Your task to perform on an android device: check out phone information Image 0: 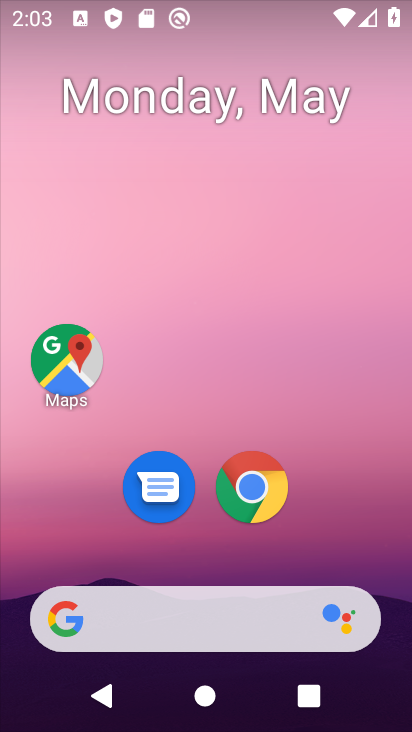
Step 0: drag from (254, 376) to (231, 1)
Your task to perform on an android device: check out phone information Image 1: 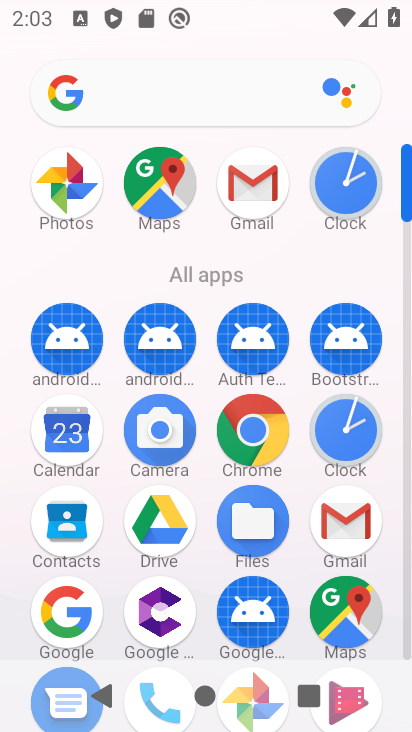
Step 1: drag from (199, 468) to (251, 147)
Your task to perform on an android device: check out phone information Image 2: 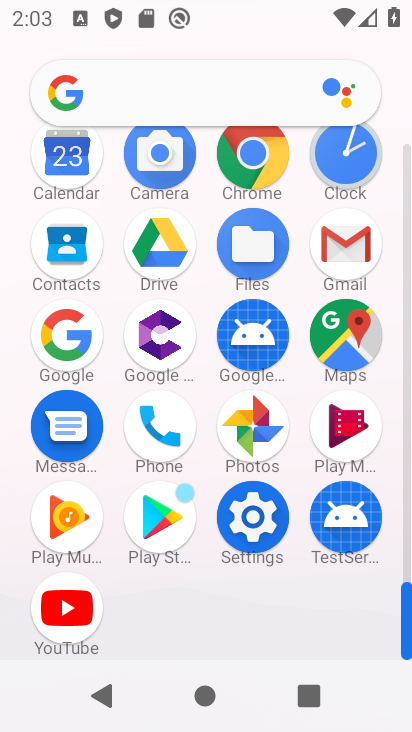
Step 2: click (165, 420)
Your task to perform on an android device: check out phone information Image 3: 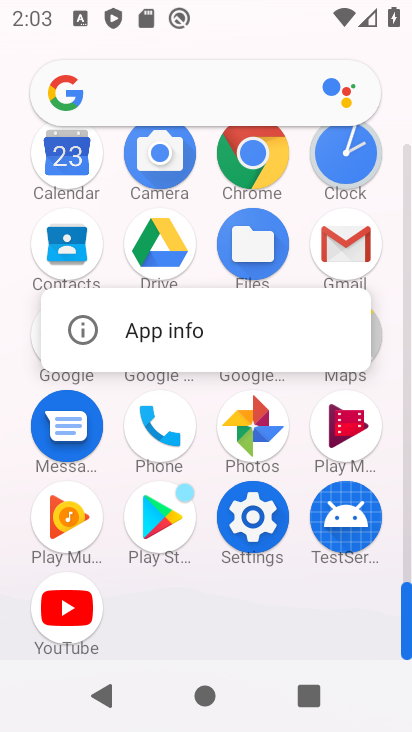
Step 3: click (165, 419)
Your task to perform on an android device: check out phone information Image 4: 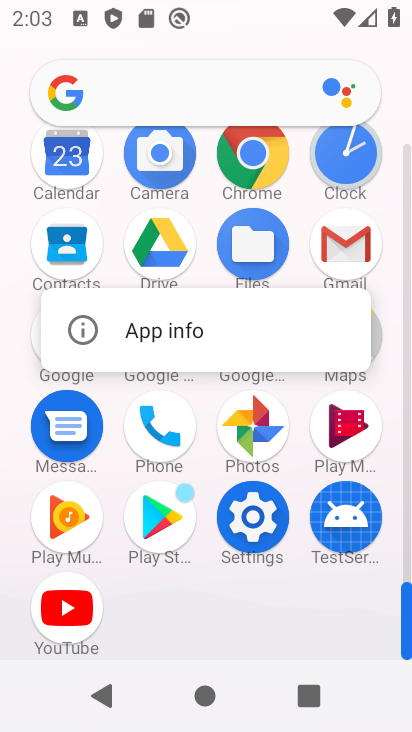
Step 4: click (159, 425)
Your task to perform on an android device: check out phone information Image 5: 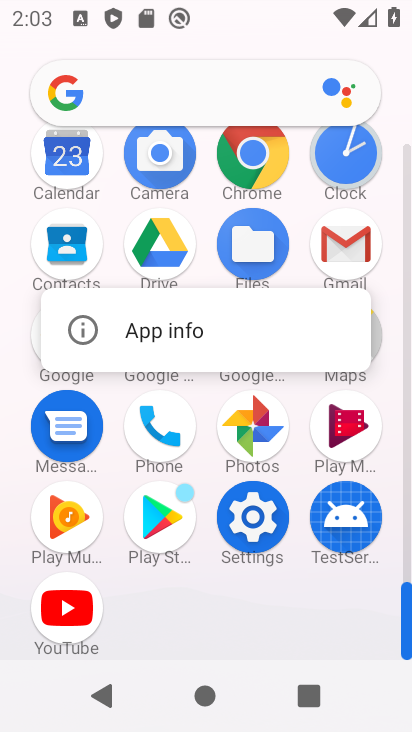
Step 5: click (159, 422)
Your task to perform on an android device: check out phone information Image 6: 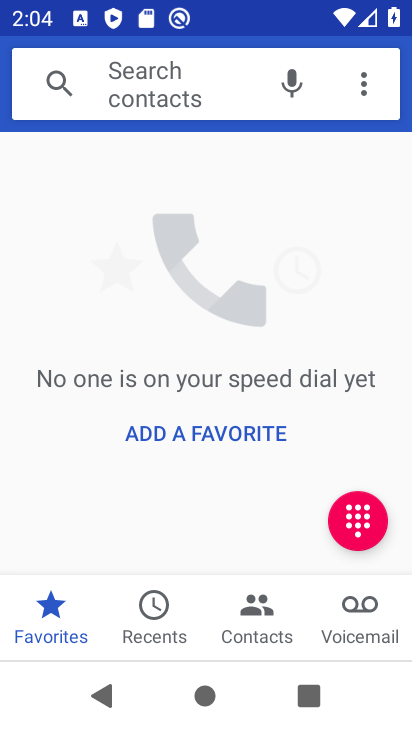
Step 6: click (361, 76)
Your task to perform on an android device: check out phone information Image 7: 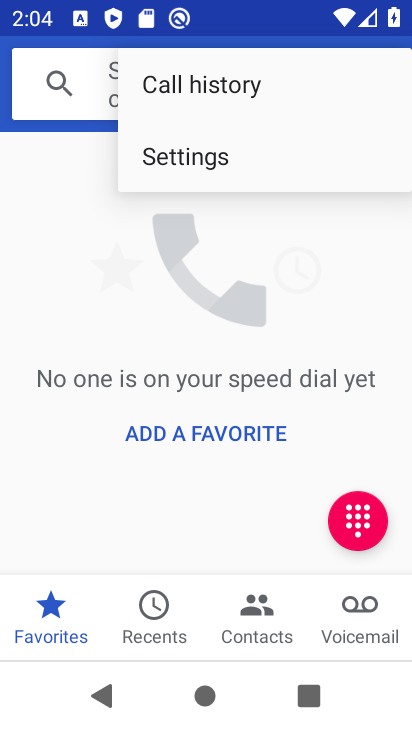
Step 7: click (280, 160)
Your task to perform on an android device: check out phone information Image 8: 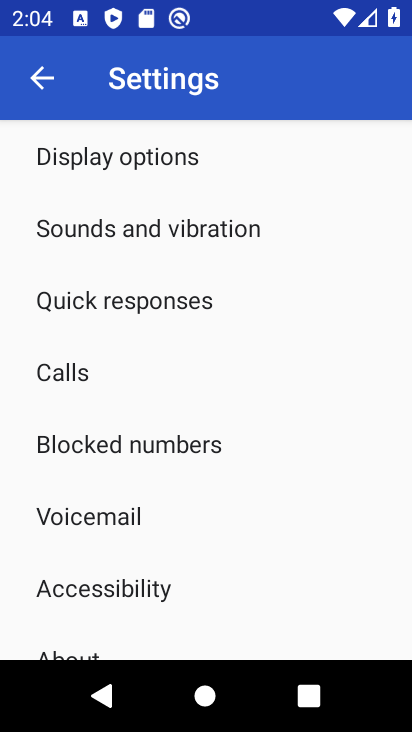
Step 8: drag from (198, 472) to (216, 178)
Your task to perform on an android device: check out phone information Image 9: 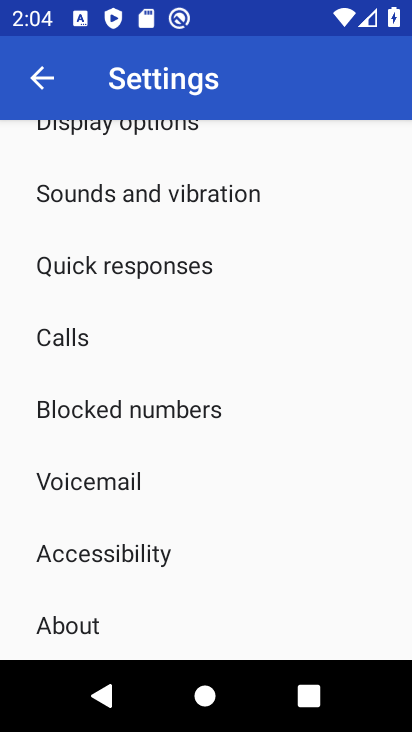
Step 9: click (117, 617)
Your task to perform on an android device: check out phone information Image 10: 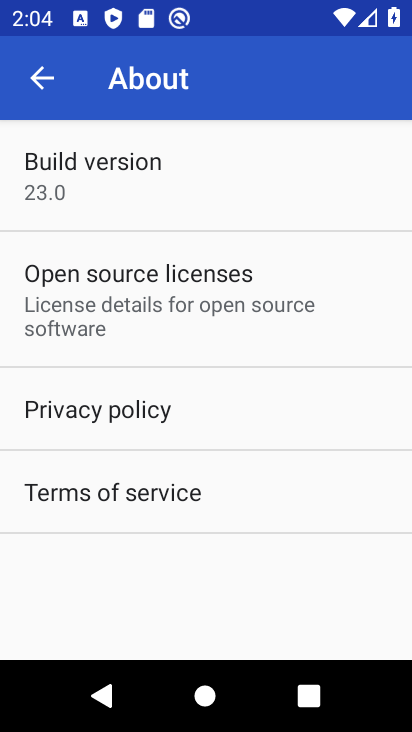
Step 10: task complete